Your task to perform on an android device: Open Chrome and go to the settings page Image 0: 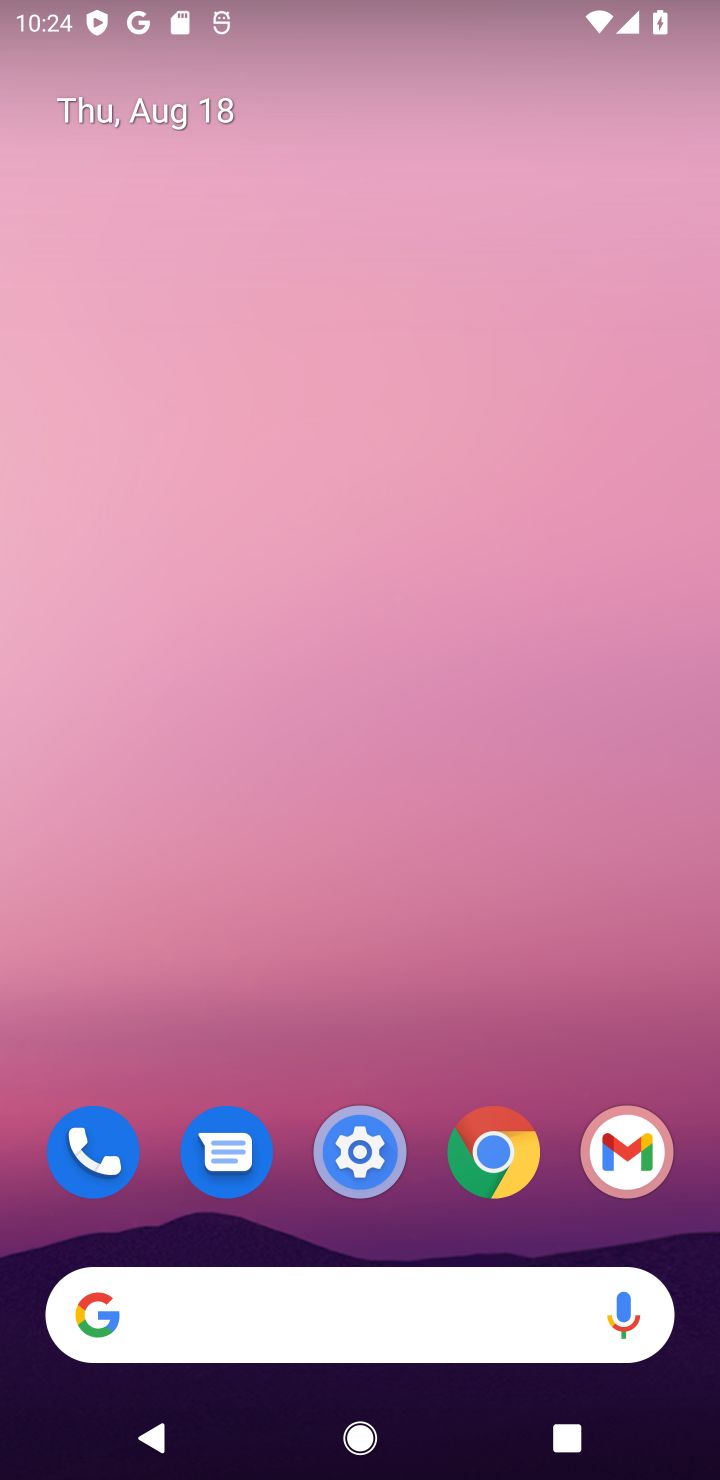
Step 0: click (484, 1142)
Your task to perform on an android device: Open Chrome and go to the settings page Image 1: 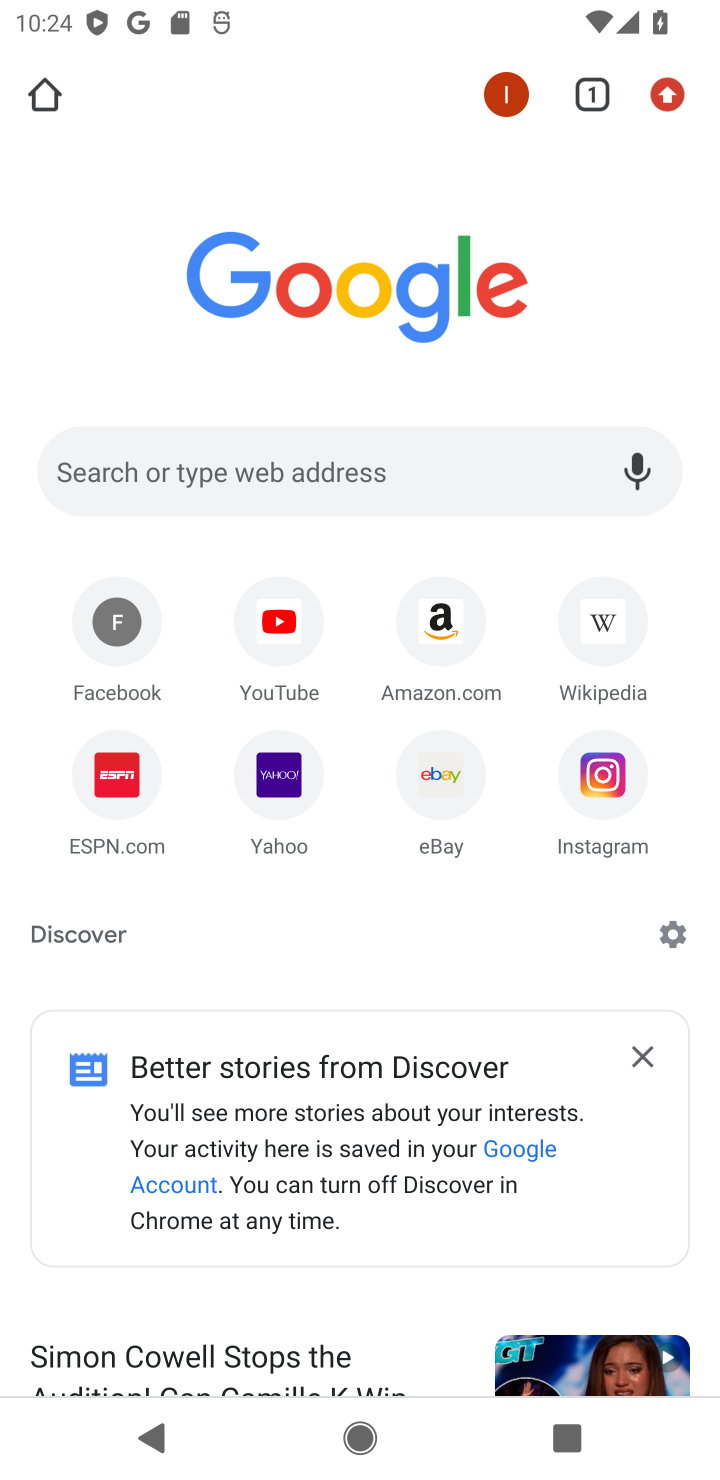
Step 1: click (671, 92)
Your task to perform on an android device: Open Chrome and go to the settings page Image 2: 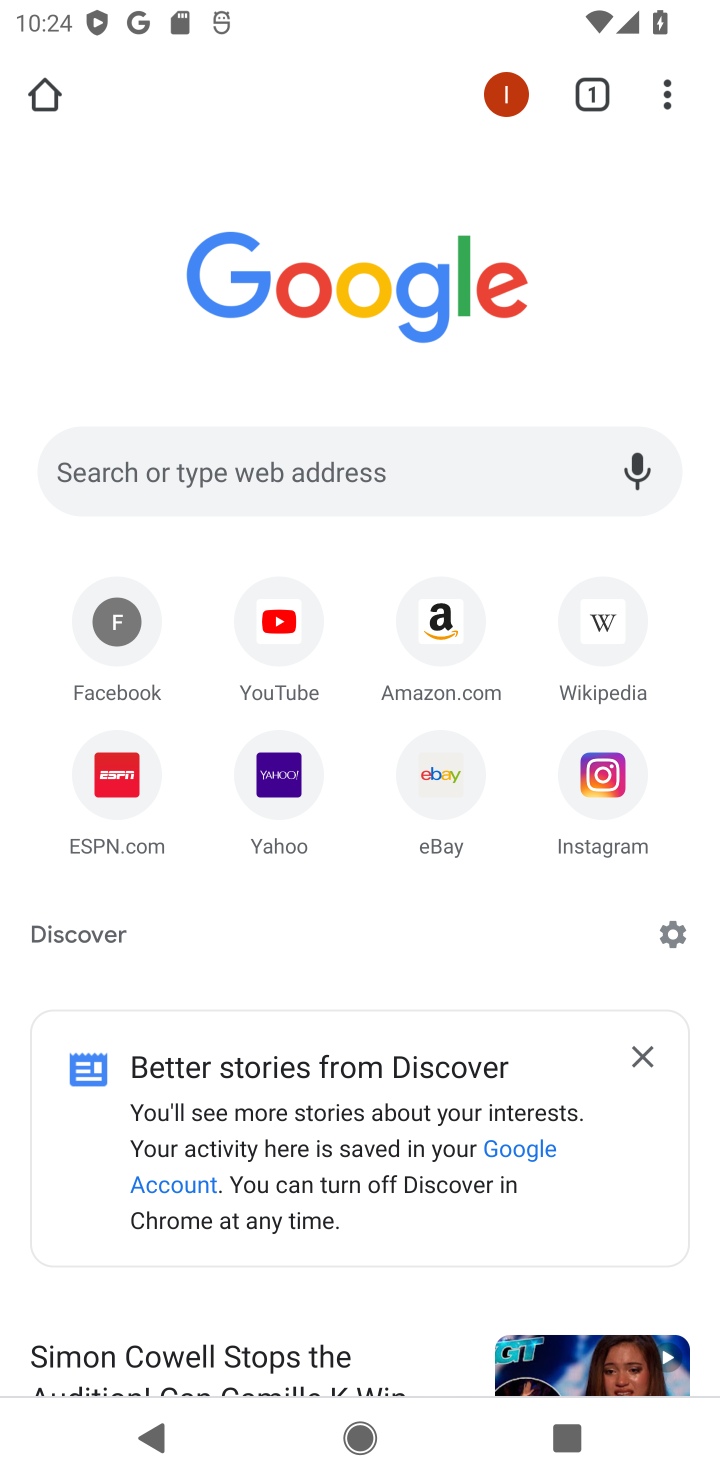
Step 2: click (671, 95)
Your task to perform on an android device: Open Chrome and go to the settings page Image 3: 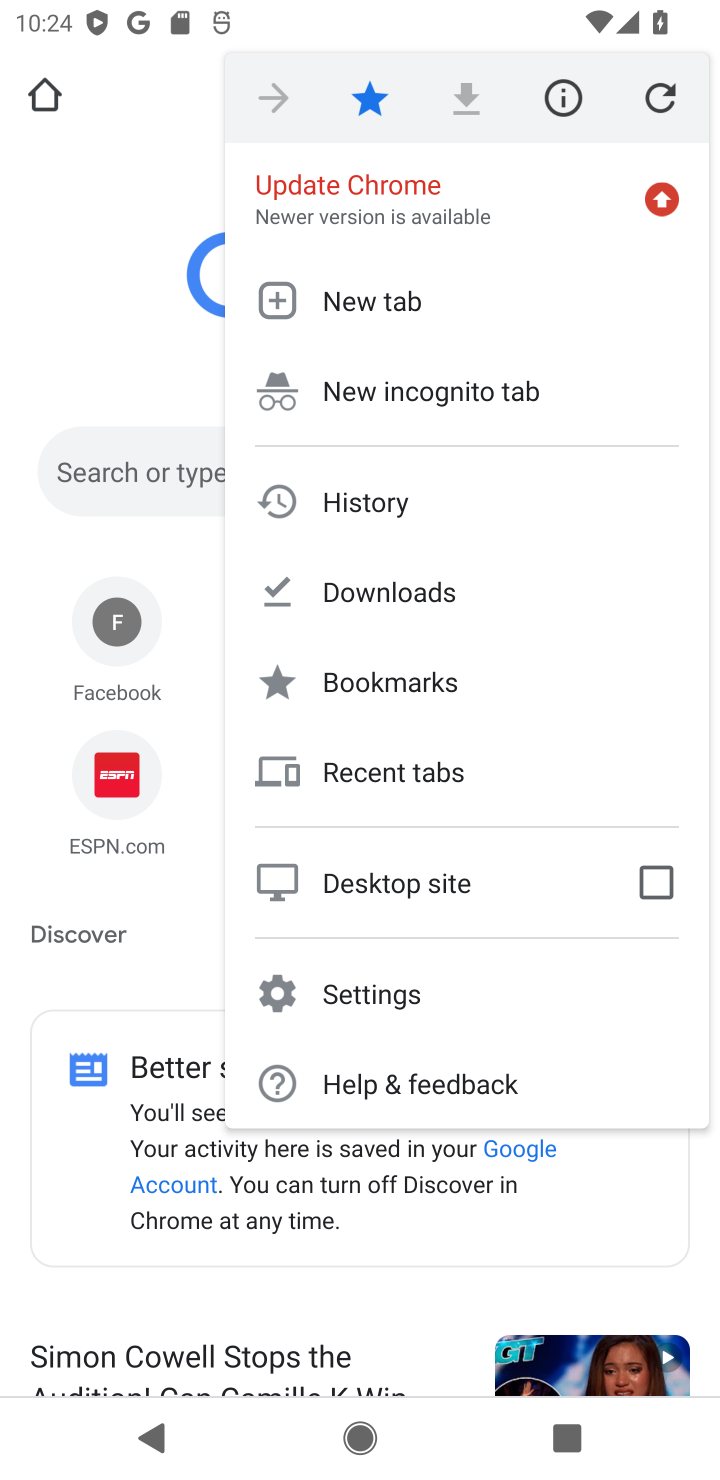
Step 3: click (397, 994)
Your task to perform on an android device: Open Chrome and go to the settings page Image 4: 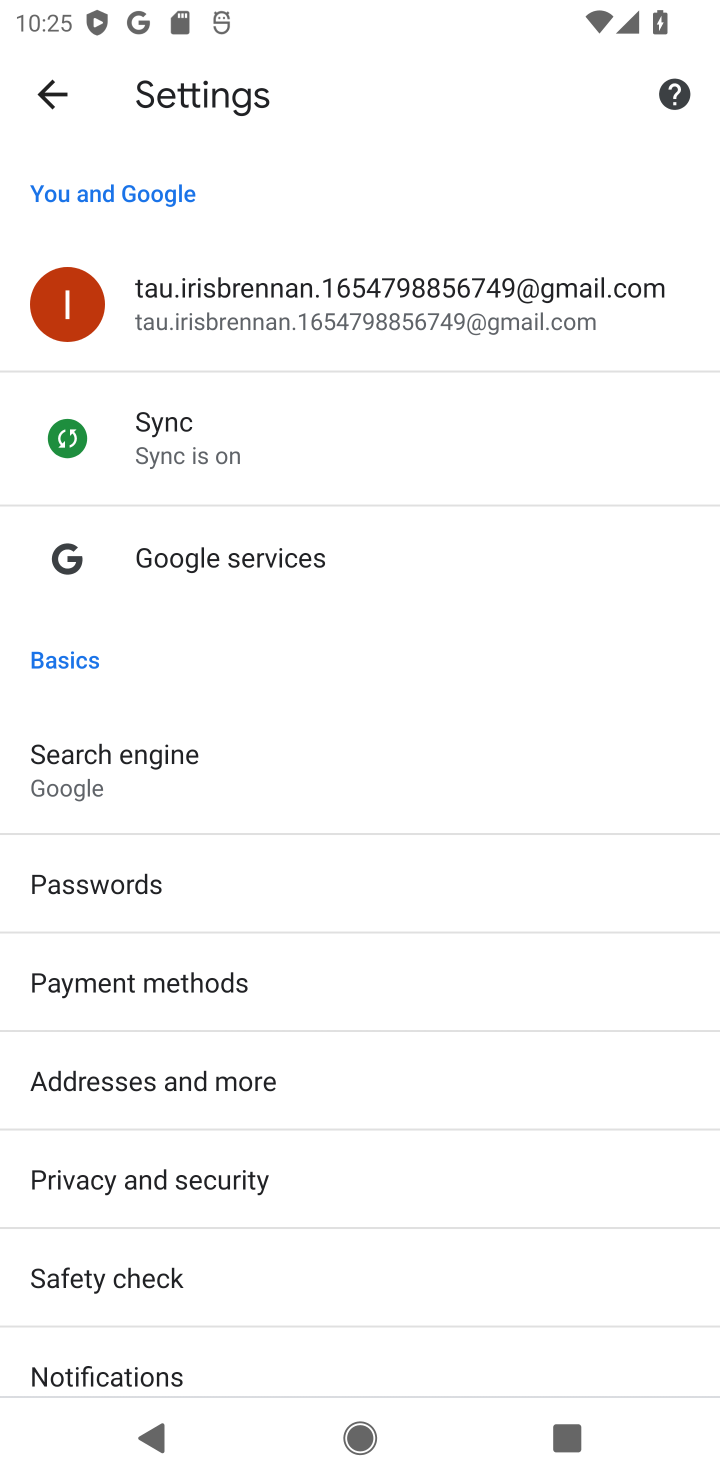
Step 4: task complete